Your task to perform on an android device: toggle sleep mode Image 0: 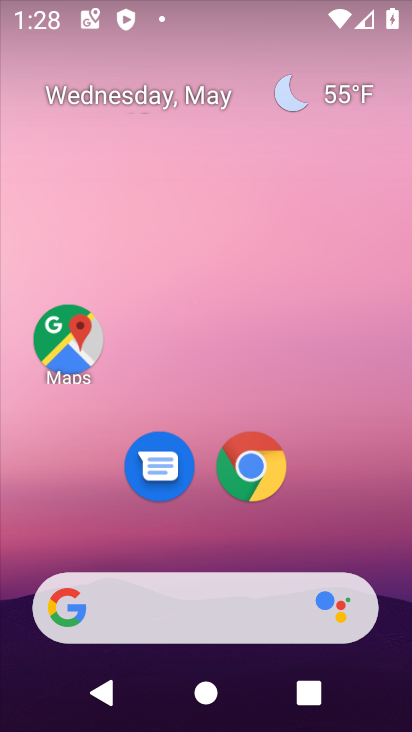
Step 0: drag from (178, 555) to (235, 13)
Your task to perform on an android device: toggle sleep mode Image 1: 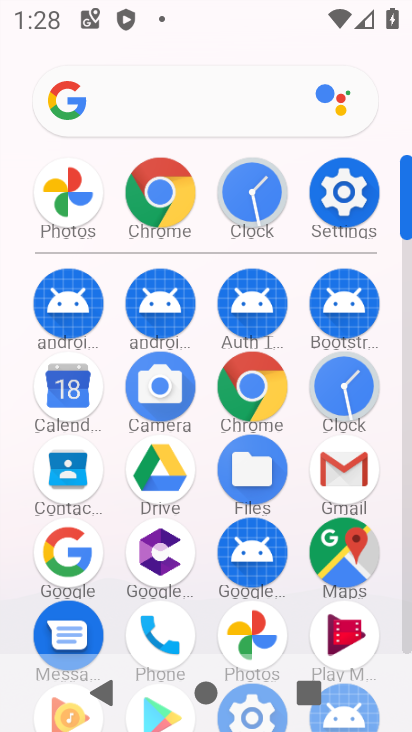
Step 1: click (339, 174)
Your task to perform on an android device: toggle sleep mode Image 2: 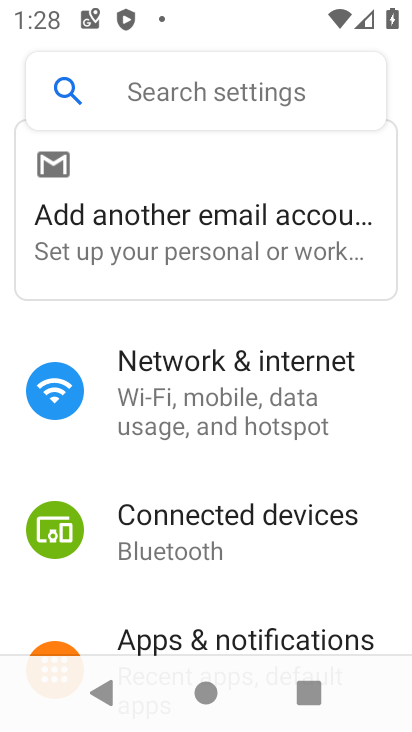
Step 2: drag from (250, 568) to (271, 350)
Your task to perform on an android device: toggle sleep mode Image 3: 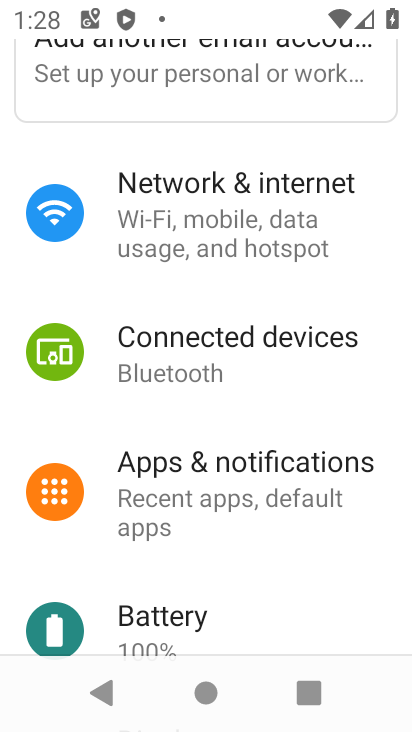
Step 3: drag from (283, 621) to (353, 362)
Your task to perform on an android device: toggle sleep mode Image 4: 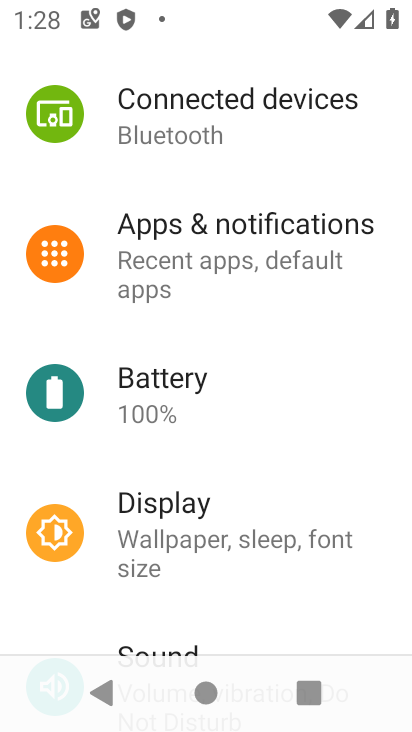
Step 4: drag from (210, 589) to (247, 329)
Your task to perform on an android device: toggle sleep mode Image 5: 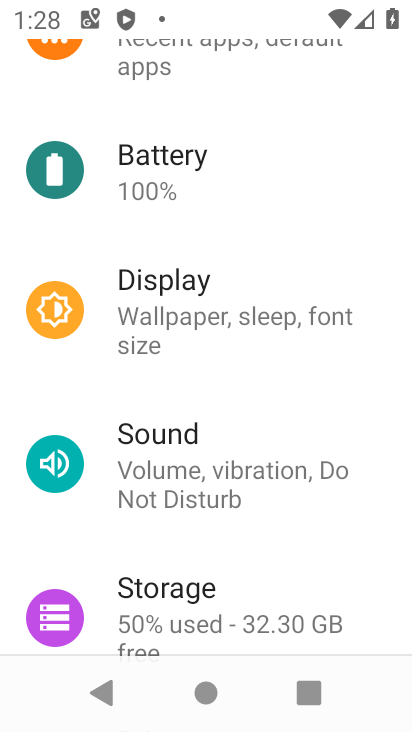
Step 5: drag from (221, 575) to (347, 329)
Your task to perform on an android device: toggle sleep mode Image 6: 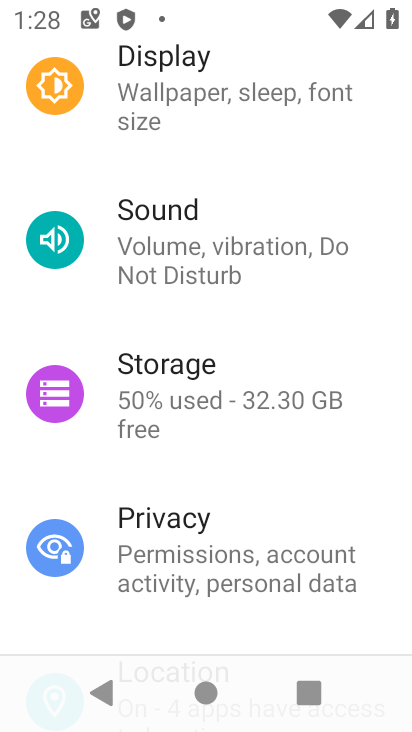
Step 6: drag from (225, 635) to (263, 276)
Your task to perform on an android device: toggle sleep mode Image 7: 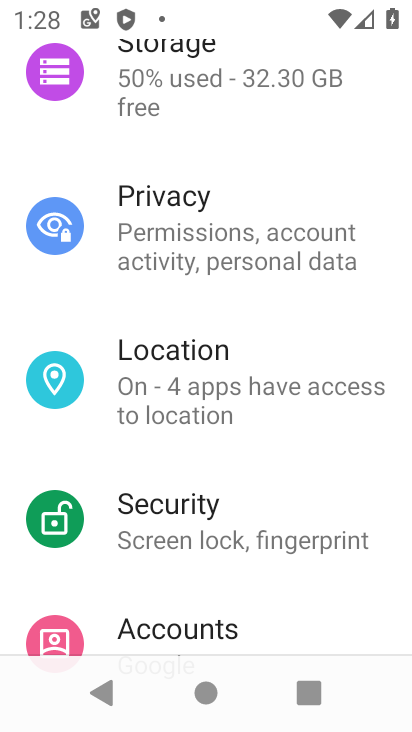
Step 7: drag from (215, 519) to (281, 159)
Your task to perform on an android device: toggle sleep mode Image 8: 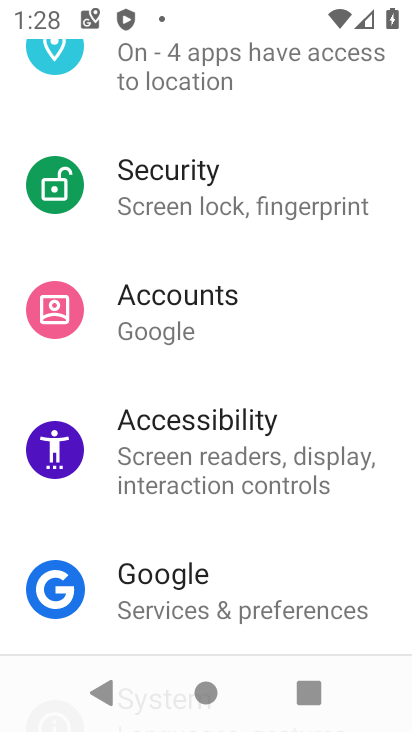
Step 8: drag from (184, 548) to (274, 311)
Your task to perform on an android device: toggle sleep mode Image 9: 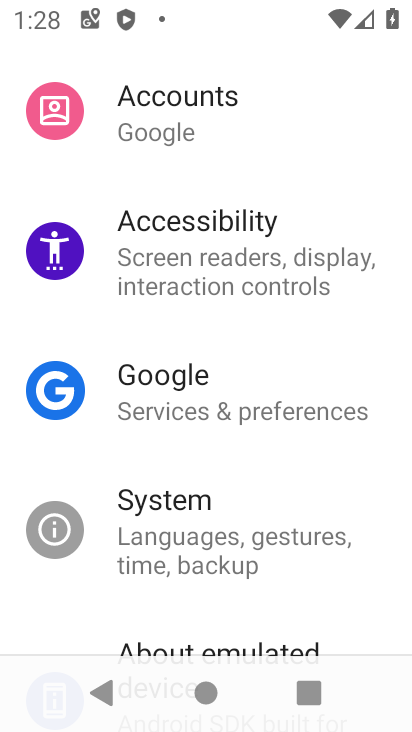
Step 9: drag from (256, 534) to (310, 374)
Your task to perform on an android device: toggle sleep mode Image 10: 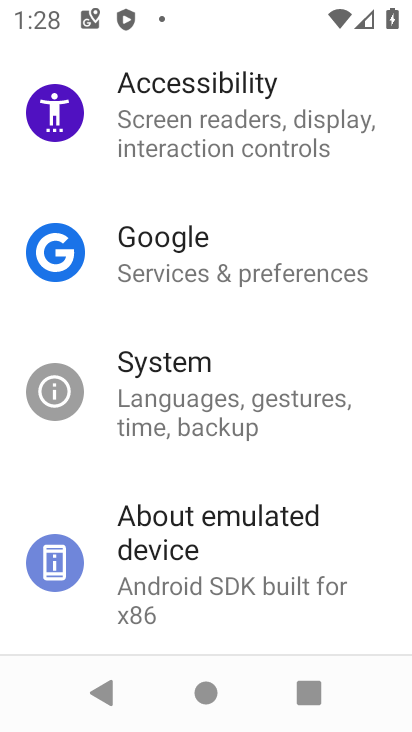
Step 10: drag from (341, 523) to (372, 421)
Your task to perform on an android device: toggle sleep mode Image 11: 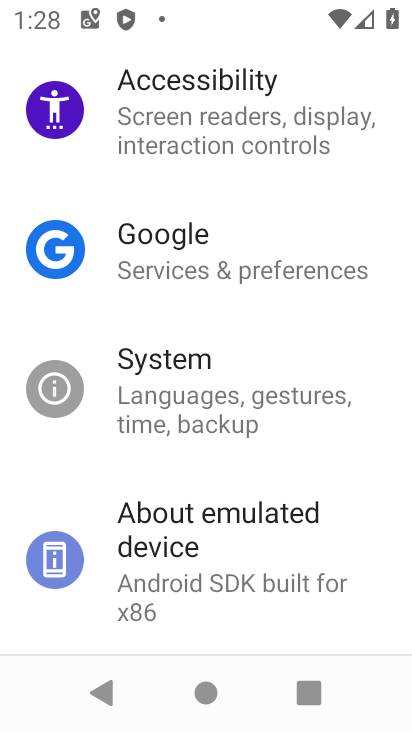
Step 11: drag from (321, 634) to (359, 723)
Your task to perform on an android device: toggle sleep mode Image 12: 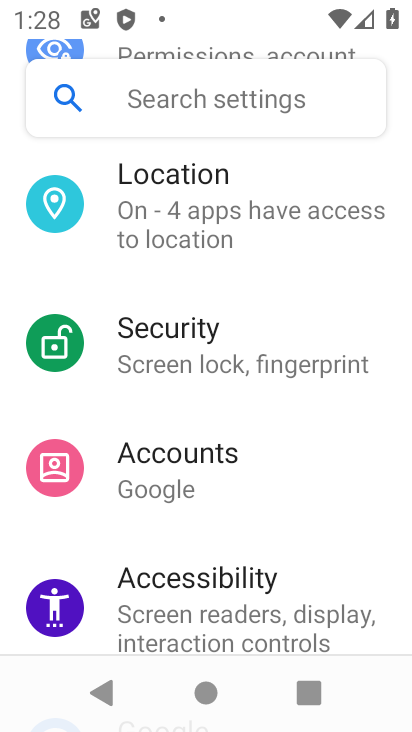
Step 12: drag from (338, 250) to (383, 673)
Your task to perform on an android device: toggle sleep mode Image 13: 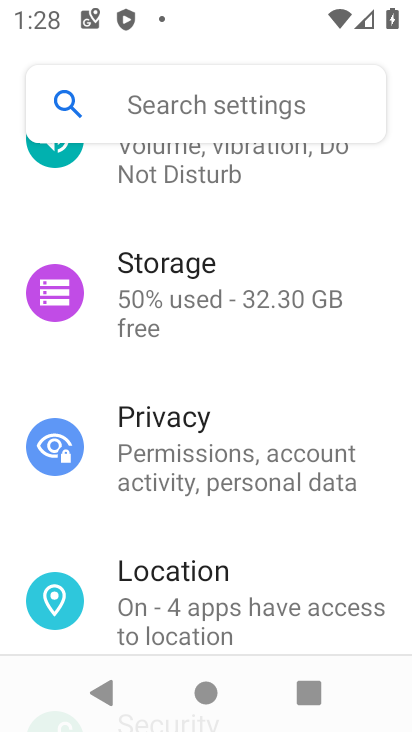
Step 13: drag from (359, 338) to (410, 562)
Your task to perform on an android device: toggle sleep mode Image 14: 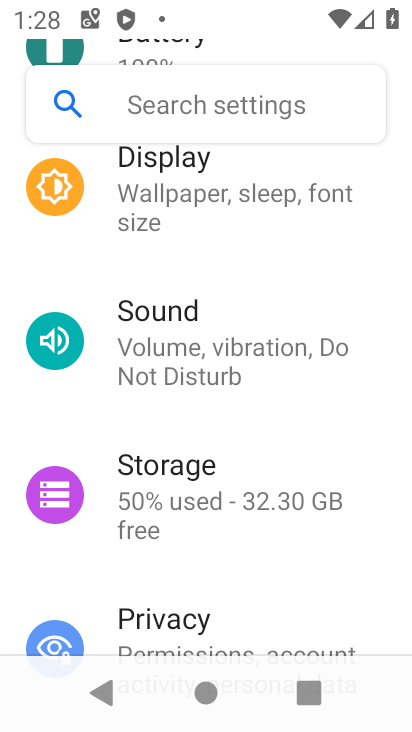
Step 14: click (355, 209)
Your task to perform on an android device: toggle sleep mode Image 15: 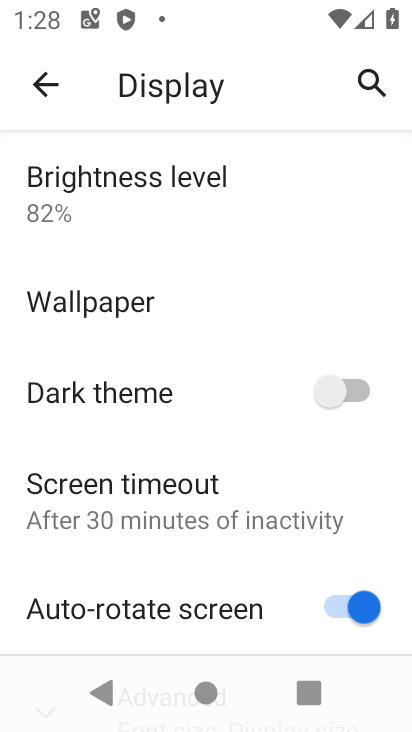
Step 15: drag from (194, 542) to (285, 259)
Your task to perform on an android device: toggle sleep mode Image 16: 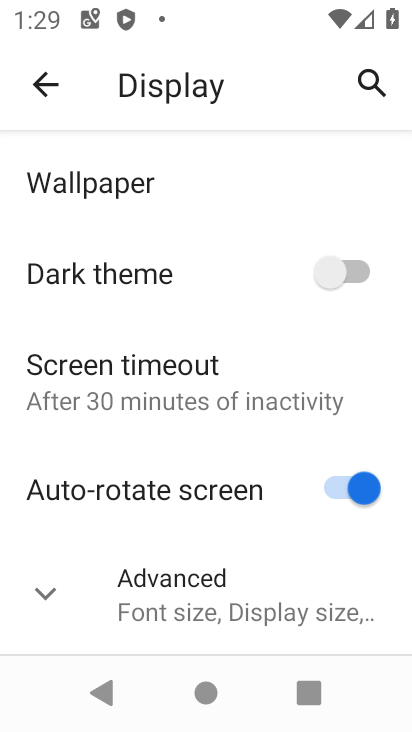
Step 16: drag from (349, 413) to (403, 226)
Your task to perform on an android device: toggle sleep mode Image 17: 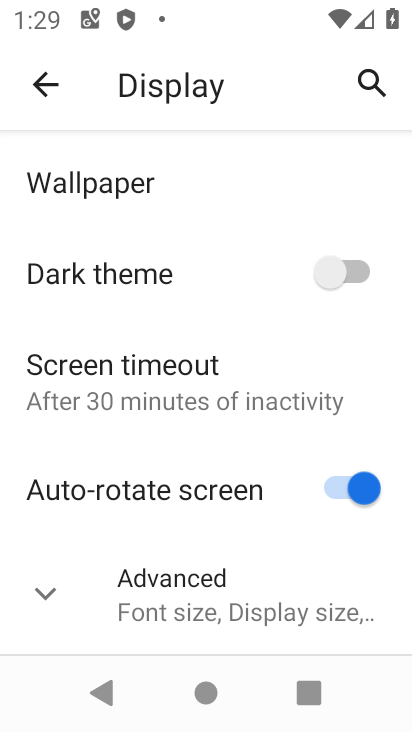
Step 17: click (130, 614)
Your task to perform on an android device: toggle sleep mode Image 18: 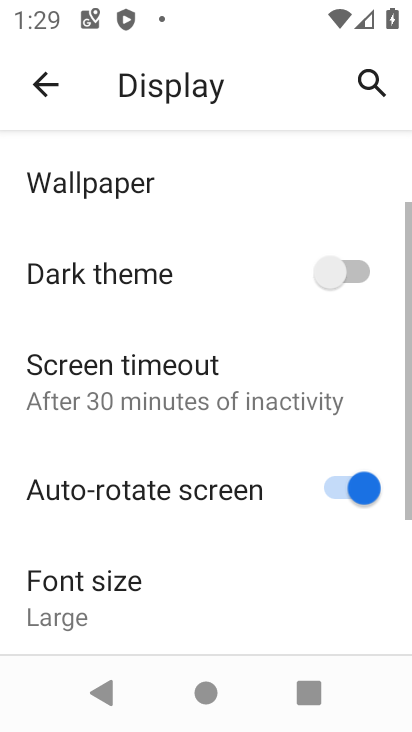
Step 18: task complete